Your task to perform on an android device: Go to accessibility settings Image 0: 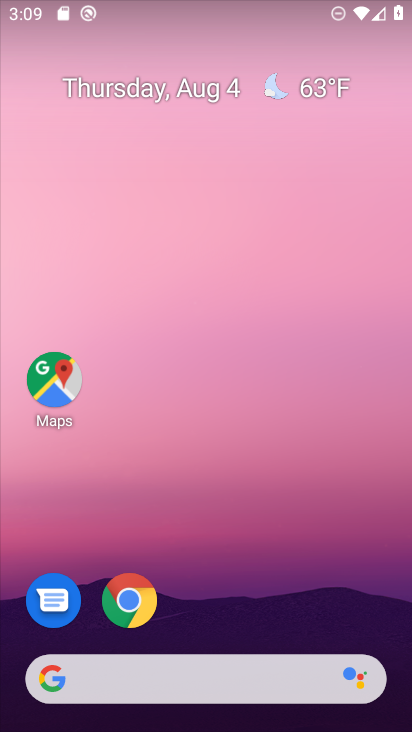
Step 0: drag from (181, 688) to (325, 132)
Your task to perform on an android device: Go to accessibility settings Image 1: 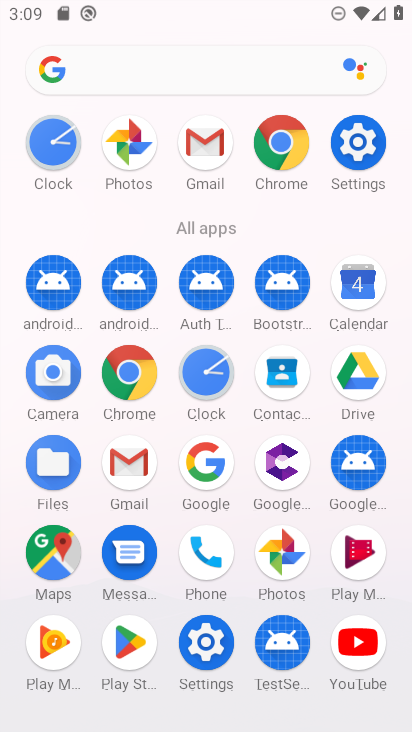
Step 1: click (363, 137)
Your task to perform on an android device: Go to accessibility settings Image 2: 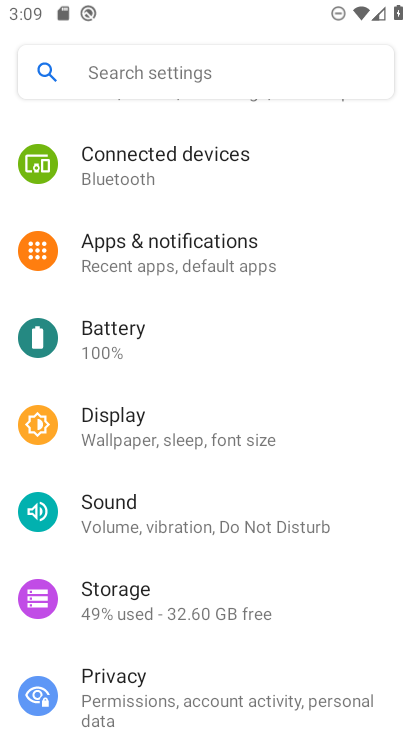
Step 2: drag from (207, 650) to (259, 99)
Your task to perform on an android device: Go to accessibility settings Image 3: 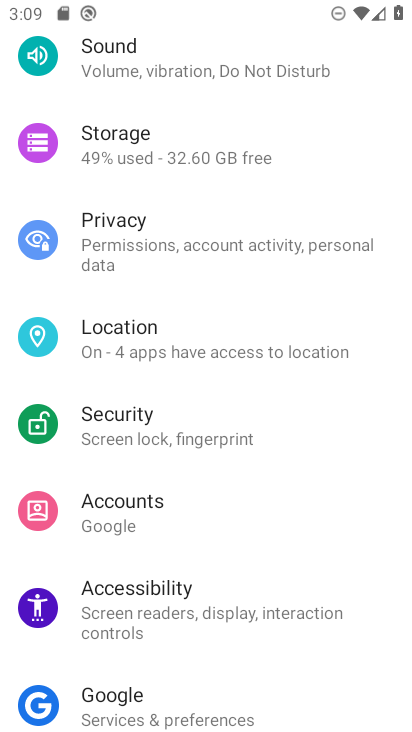
Step 3: click (157, 594)
Your task to perform on an android device: Go to accessibility settings Image 4: 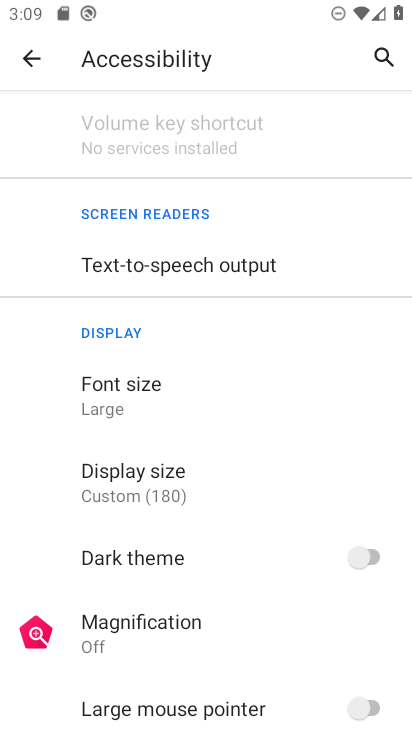
Step 4: task complete